Your task to perform on an android device: toggle wifi Image 0: 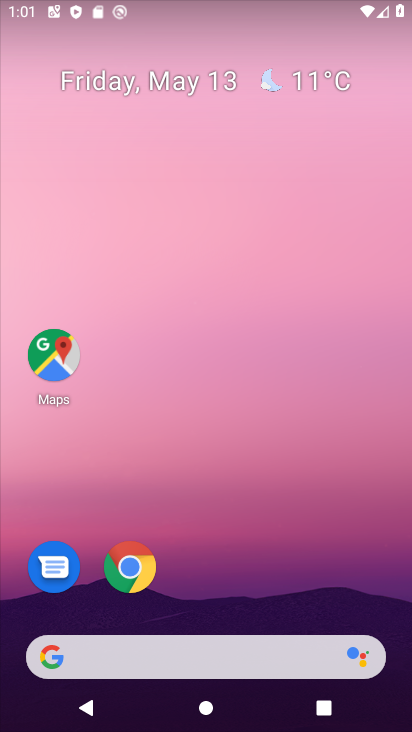
Step 0: drag from (203, 531) to (238, 346)
Your task to perform on an android device: toggle wifi Image 1: 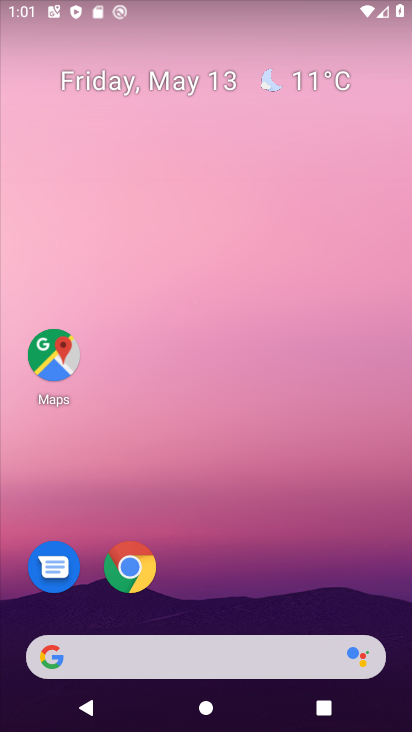
Step 1: drag from (190, 634) to (260, 246)
Your task to perform on an android device: toggle wifi Image 2: 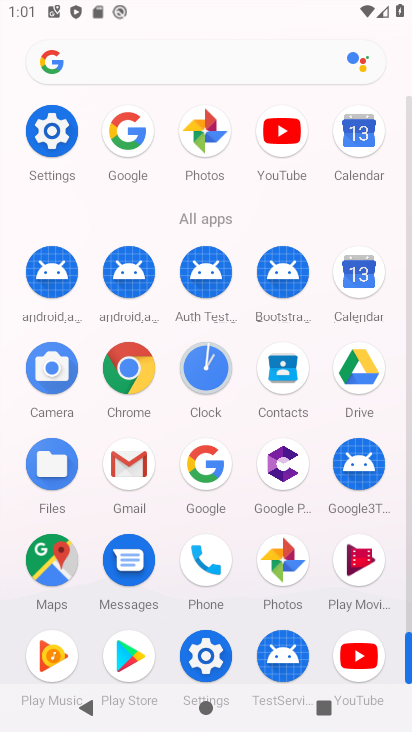
Step 2: click (215, 669)
Your task to perform on an android device: toggle wifi Image 3: 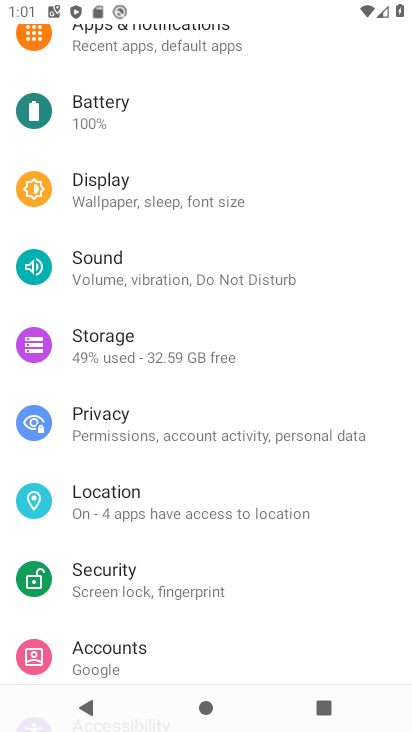
Step 3: drag from (239, 148) to (202, 569)
Your task to perform on an android device: toggle wifi Image 4: 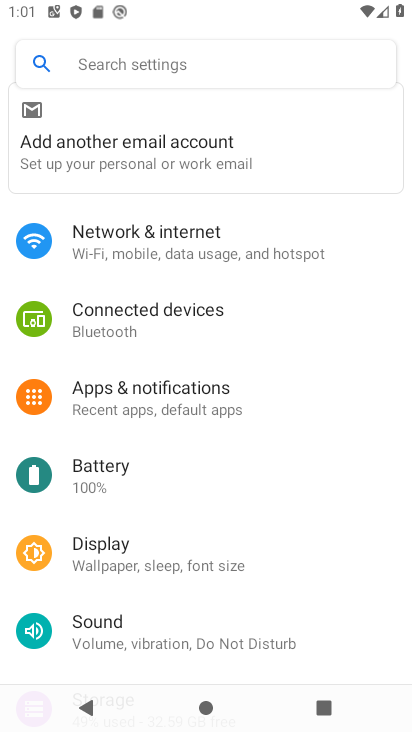
Step 4: click (222, 248)
Your task to perform on an android device: toggle wifi Image 5: 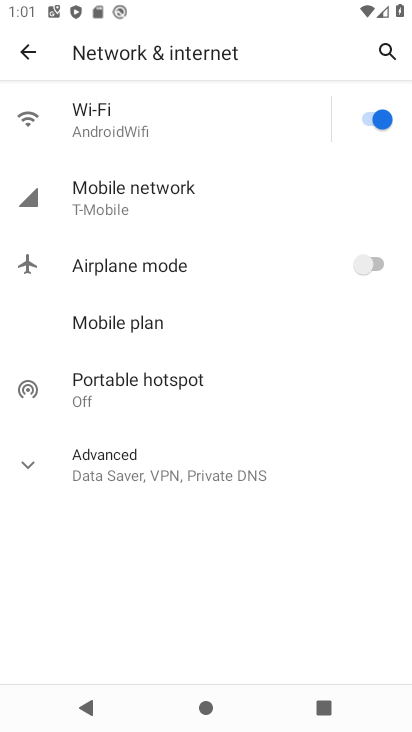
Step 5: click (362, 114)
Your task to perform on an android device: toggle wifi Image 6: 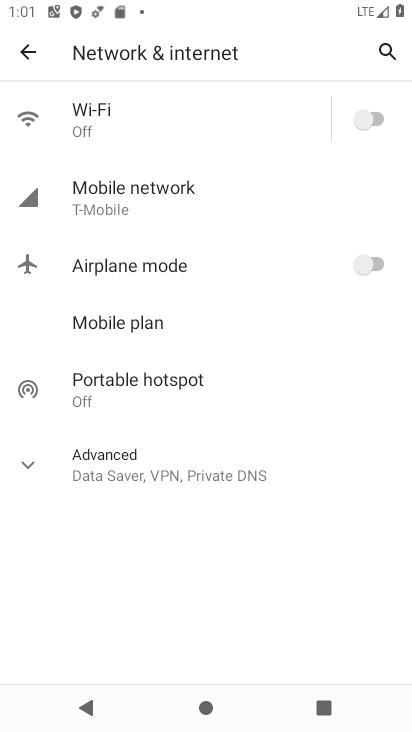
Step 6: task complete